Your task to perform on an android device: Play the last video I watched on Youtube Image 0: 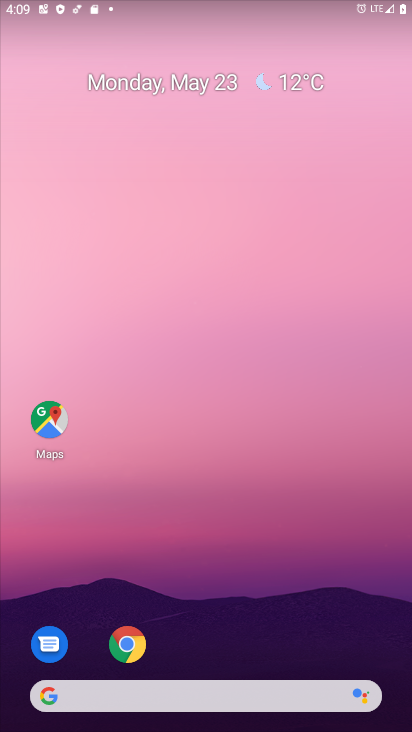
Step 0: drag from (224, 633) to (246, 221)
Your task to perform on an android device: Play the last video I watched on Youtube Image 1: 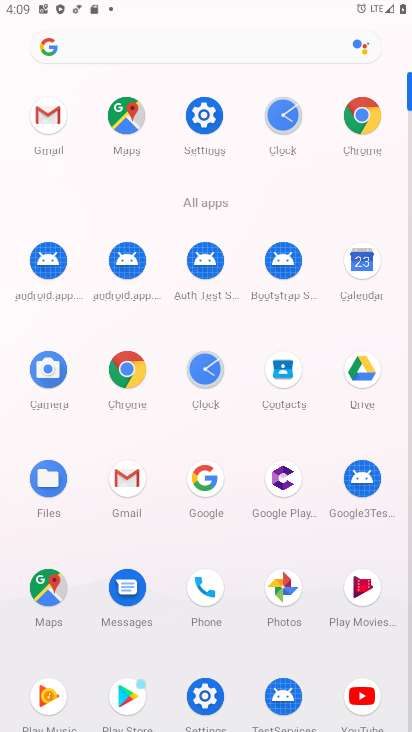
Step 1: click (371, 688)
Your task to perform on an android device: Play the last video I watched on Youtube Image 2: 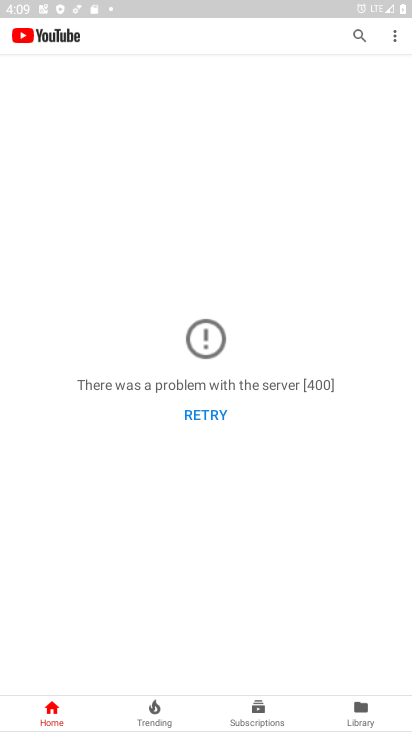
Step 2: click (364, 713)
Your task to perform on an android device: Play the last video I watched on Youtube Image 3: 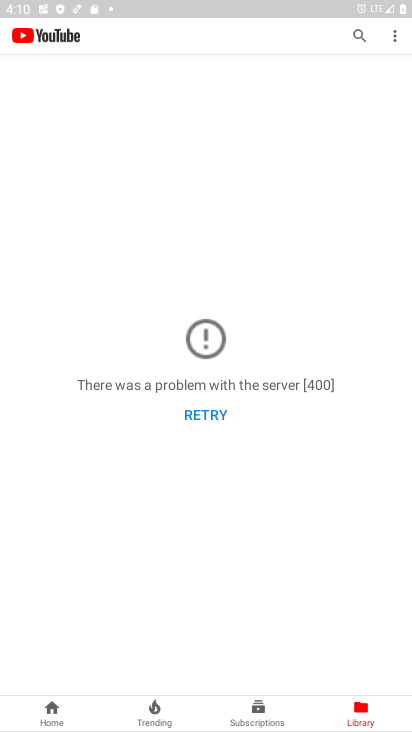
Step 3: task complete